Your task to perform on an android device: Search for Mexican restaurants on Maps Image 0: 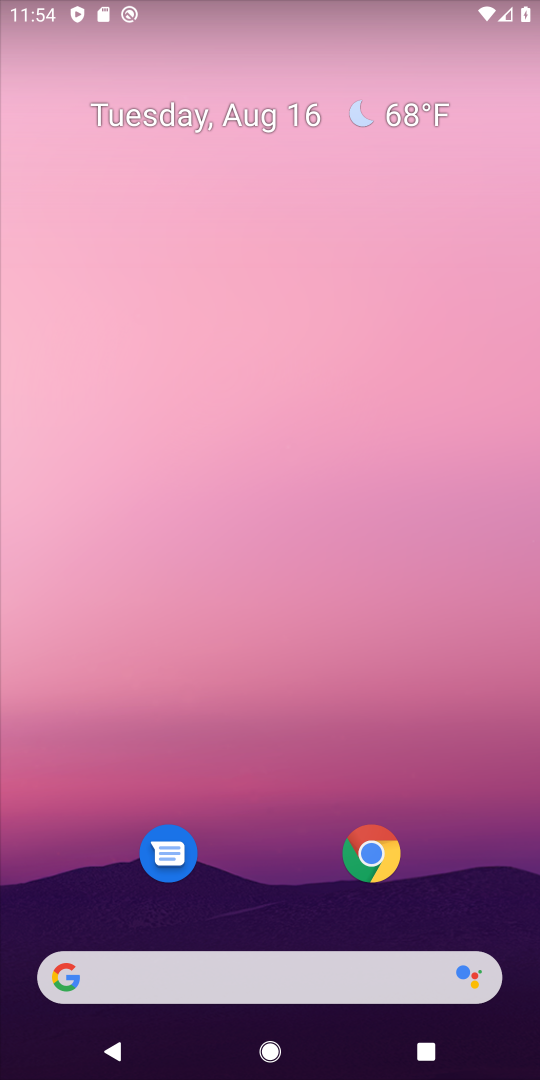
Step 0: drag from (230, 803) to (228, 163)
Your task to perform on an android device: Search for Mexican restaurants on Maps Image 1: 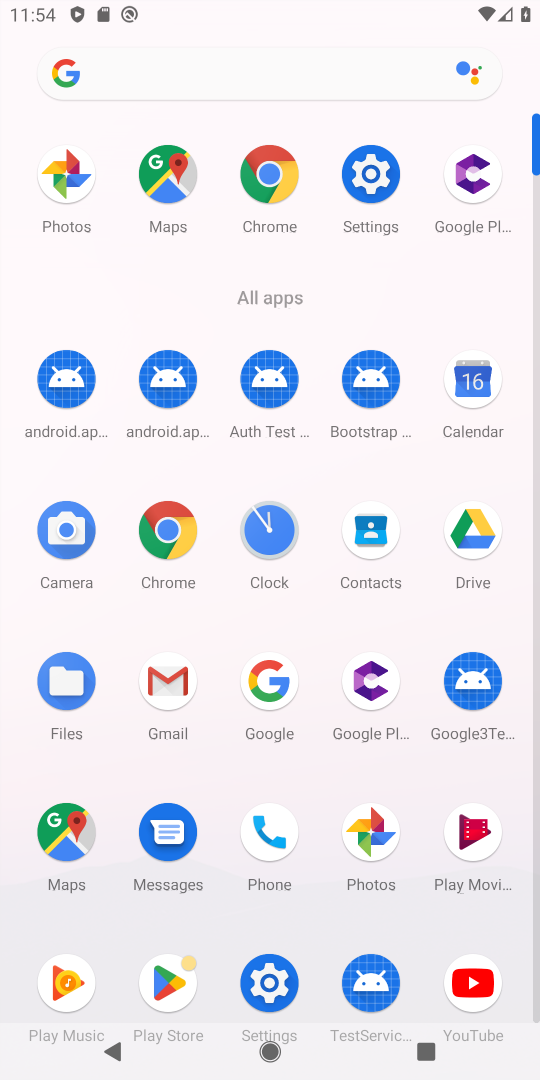
Step 1: click (42, 828)
Your task to perform on an android device: Search for Mexican restaurants on Maps Image 2: 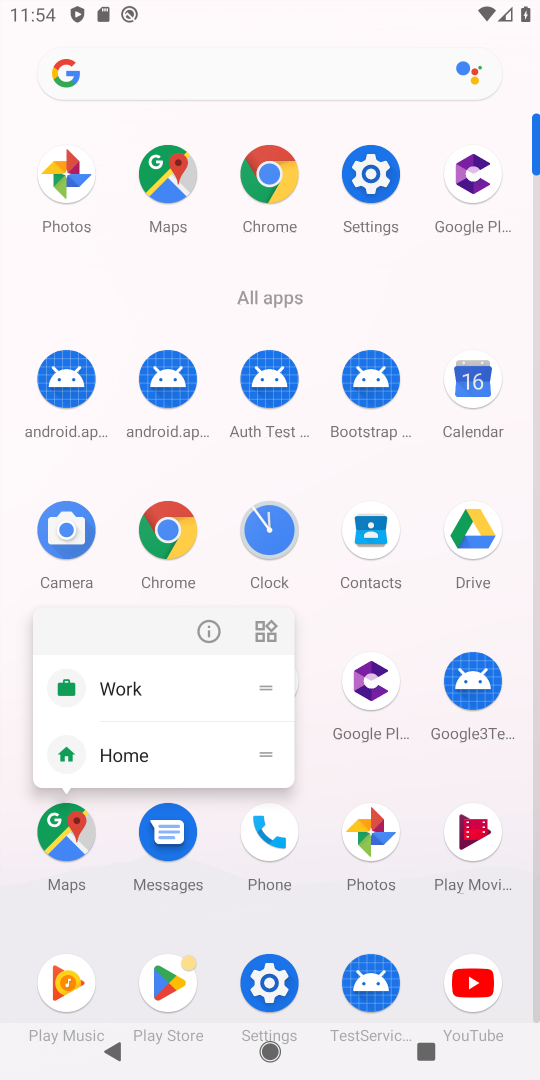
Step 2: click (46, 832)
Your task to perform on an android device: Search for Mexican restaurants on Maps Image 3: 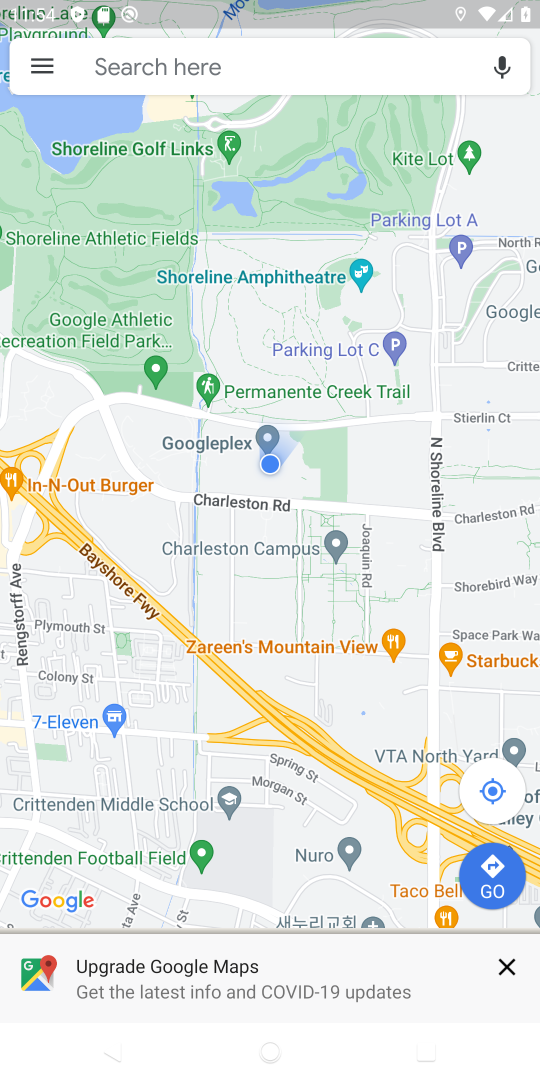
Step 3: click (158, 68)
Your task to perform on an android device: Search for Mexican restaurants on Maps Image 4: 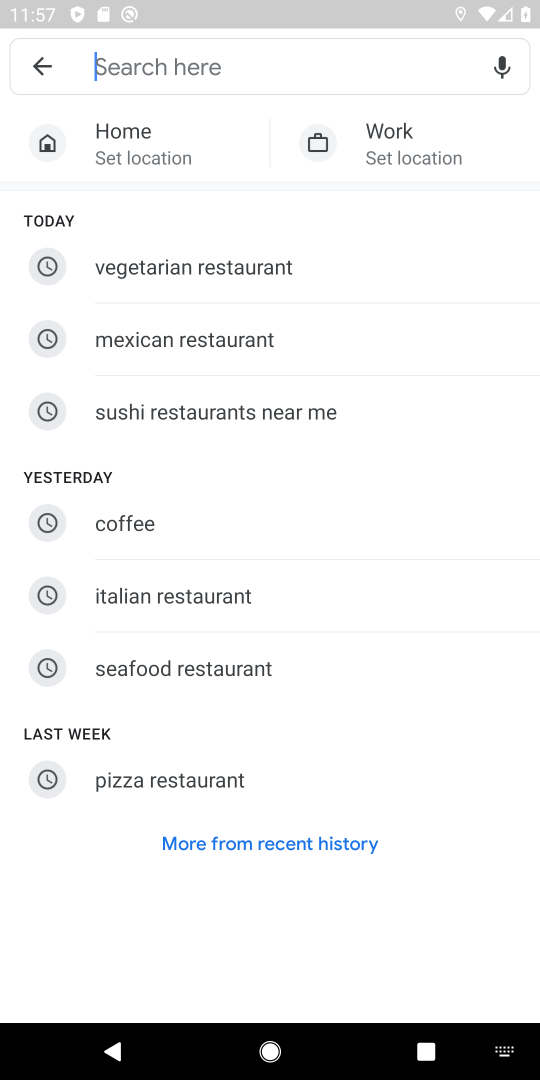
Step 4: click (150, 324)
Your task to perform on an android device: Search for Mexican restaurants on Maps Image 5: 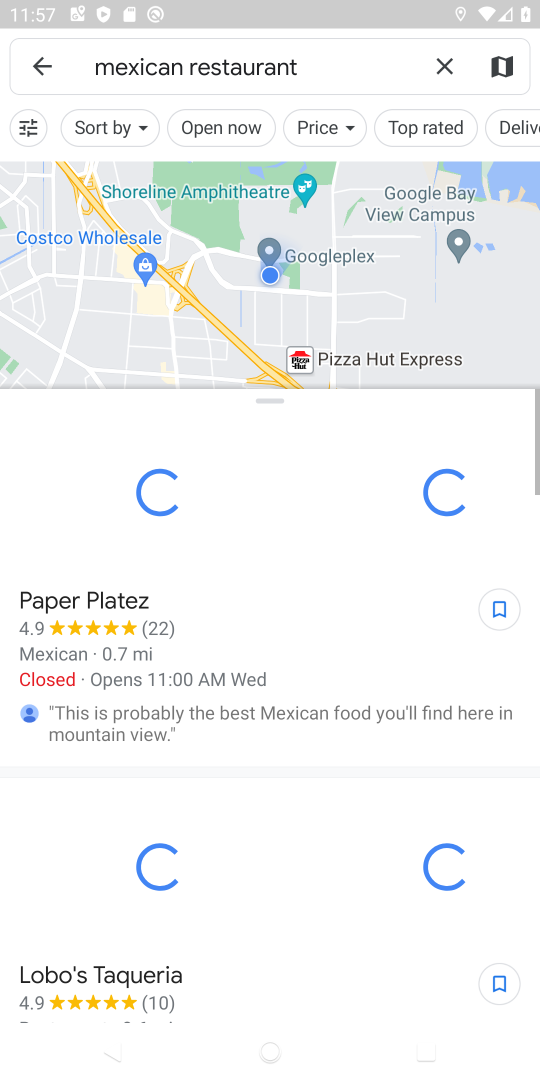
Step 5: task complete